Your task to perform on an android device: turn off translation in the chrome app Image 0: 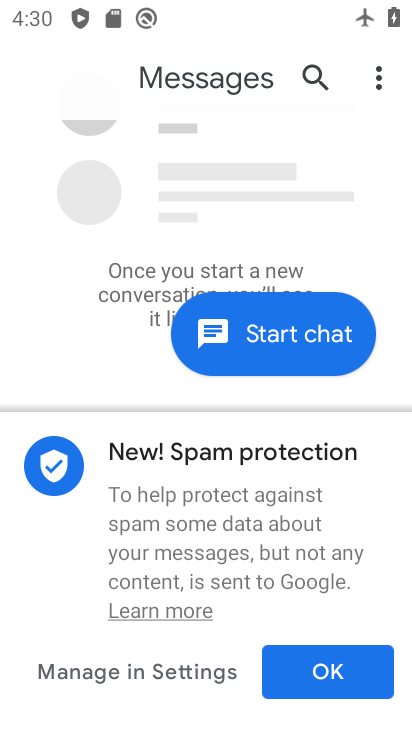
Step 0: press back button
Your task to perform on an android device: turn off translation in the chrome app Image 1: 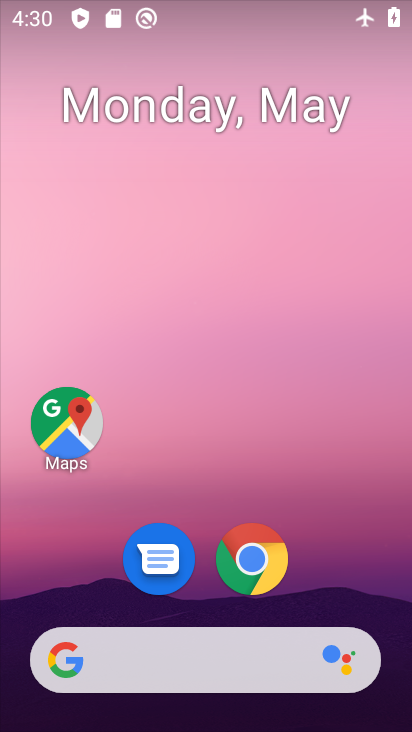
Step 1: drag from (333, 539) to (266, 25)
Your task to perform on an android device: turn off translation in the chrome app Image 2: 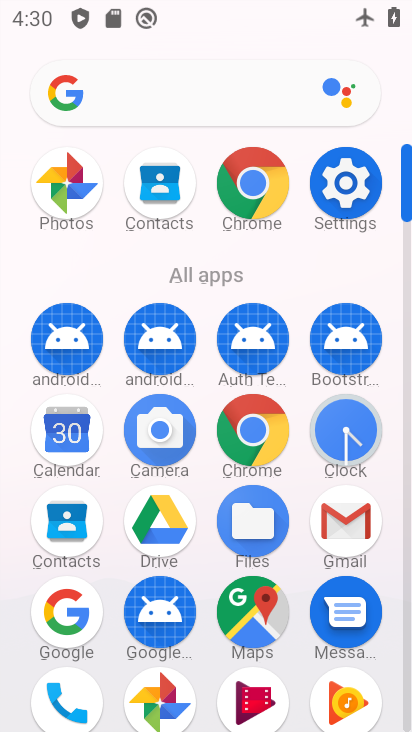
Step 2: drag from (4, 611) to (25, 214)
Your task to perform on an android device: turn off translation in the chrome app Image 3: 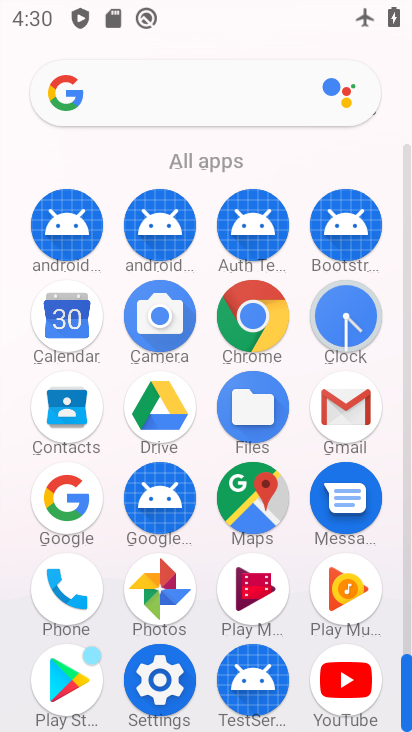
Step 3: click (254, 317)
Your task to perform on an android device: turn off translation in the chrome app Image 4: 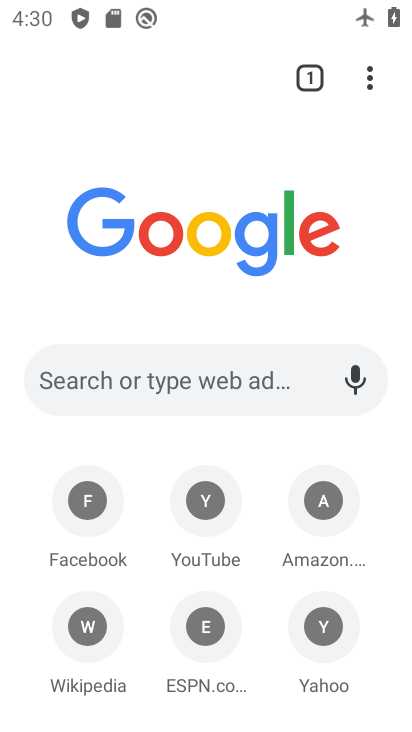
Step 4: drag from (369, 75) to (115, 600)
Your task to perform on an android device: turn off translation in the chrome app Image 5: 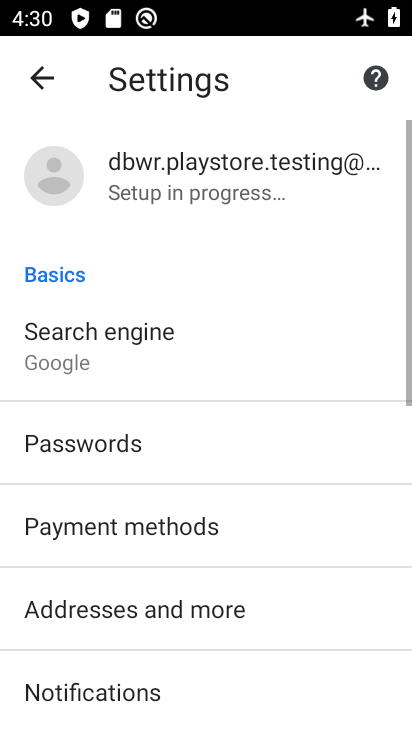
Step 5: drag from (252, 585) to (250, 191)
Your task to perform on an android device: turn off translation in the chrome app Image 6: 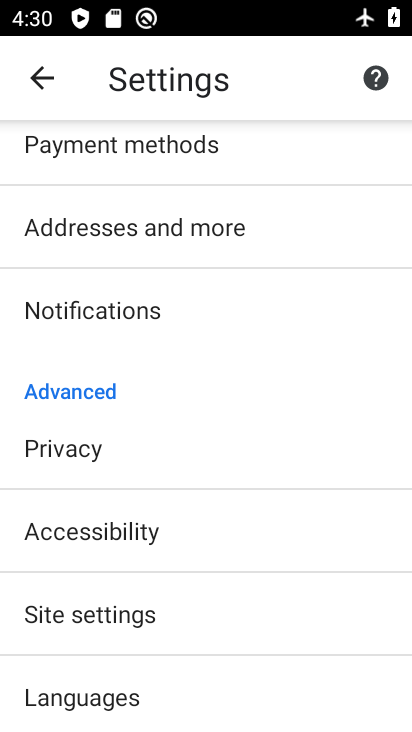
Step 6: drag from (204, 681) to (236, 290)
Your task to perform on an android device: turn off translation in the chrome app Image 7: 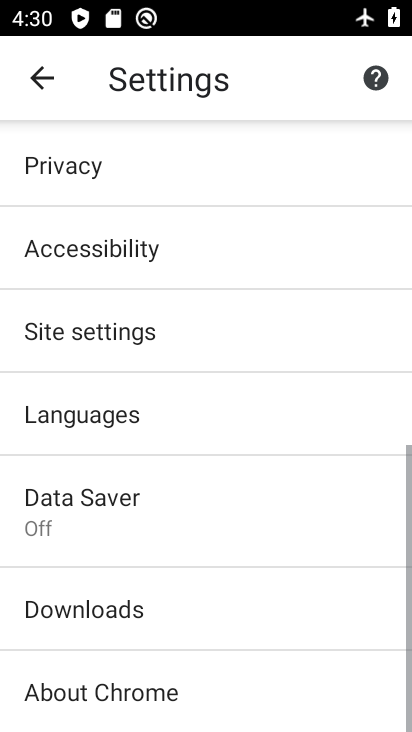
Step 7: click (118, 417)
Your task to perform on an android device: turn off translation in the chrome app Image 8: 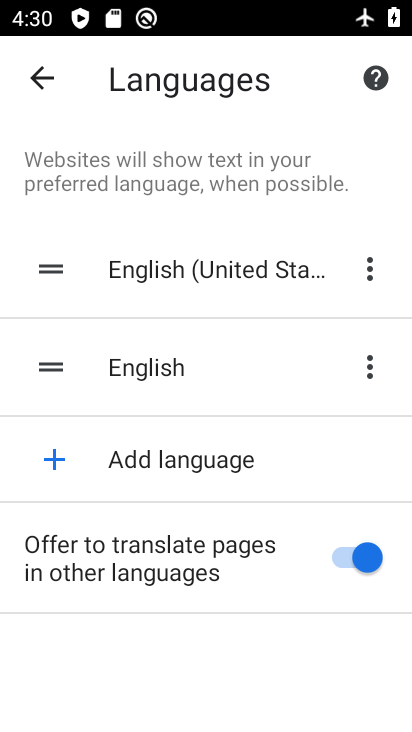
Step 8: click (349, 542)
Your task to perform on an android device: turn off translation in the chrome app Image 9: 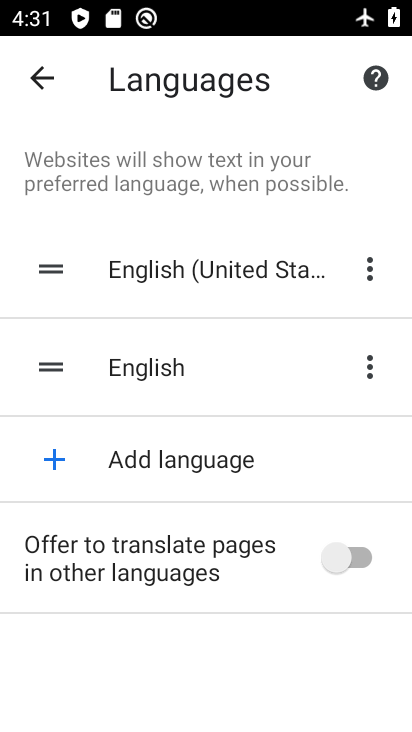
Step 9: task complete